Your task to perform on an android device: Go to internet settings Image 0: 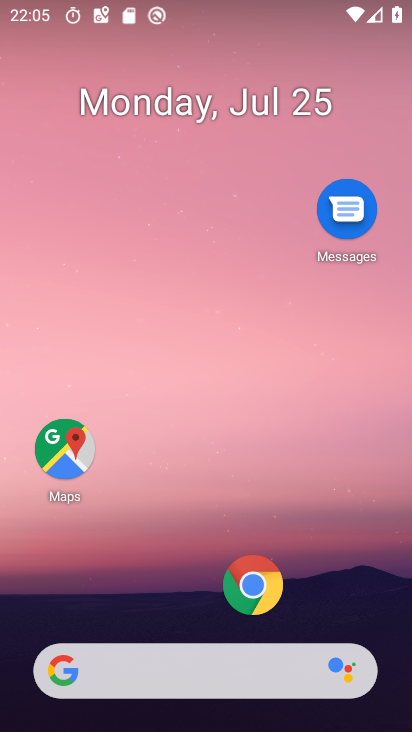
Step 0: drag from (192, 656) to (294, 107)
Your task to perform on an android device: Go to internet settings Image 1: 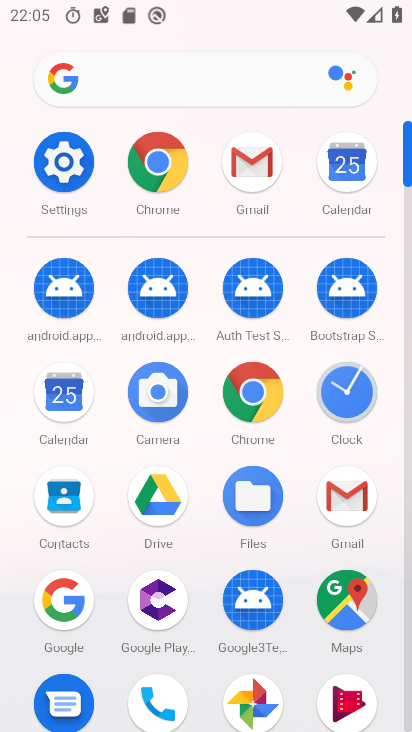
Step 1: click (67, 153)
Your task to perform on an android device: Go to internet settings Image 2: 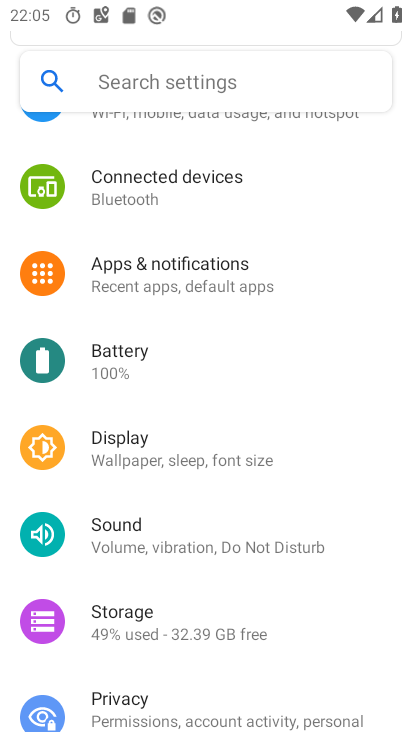
Step 2: drag from (313, 192) to (238, 641)
Your task to perform on an android device: Go to internet settings Image 3: 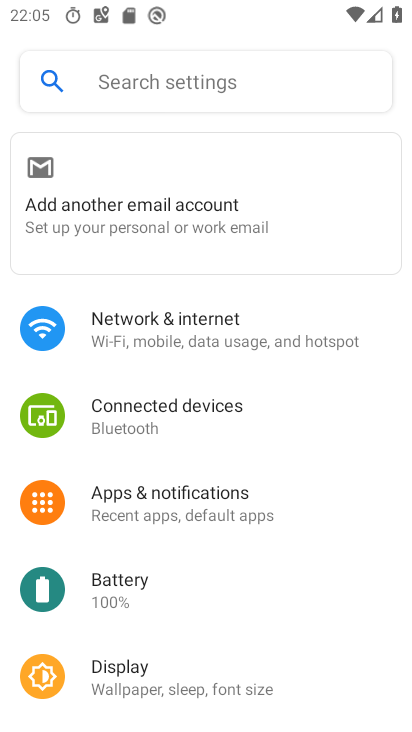
Step 3: click (227, 325)
Your task to perform on an android device: Go to internet settings Image 4: 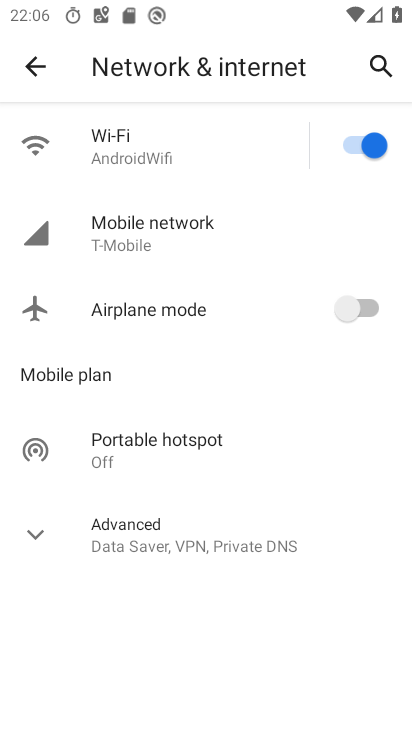
Step 4: task complete